Your task to perform on an android device: toggle sleep mode Image 0: 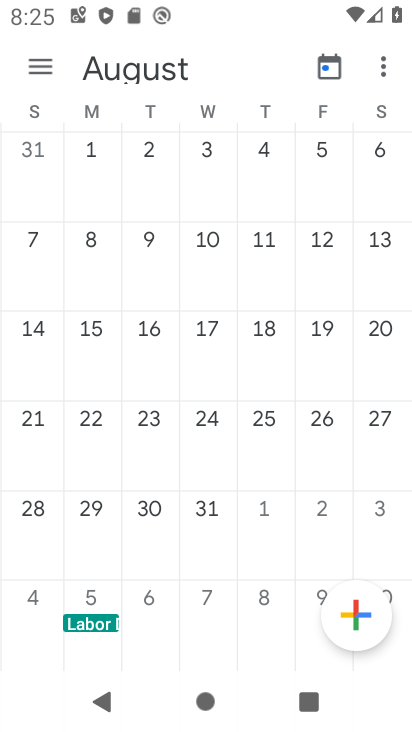
Step 0: press home button
Your task to perform on an android device: toggle sleep mode Image 1: 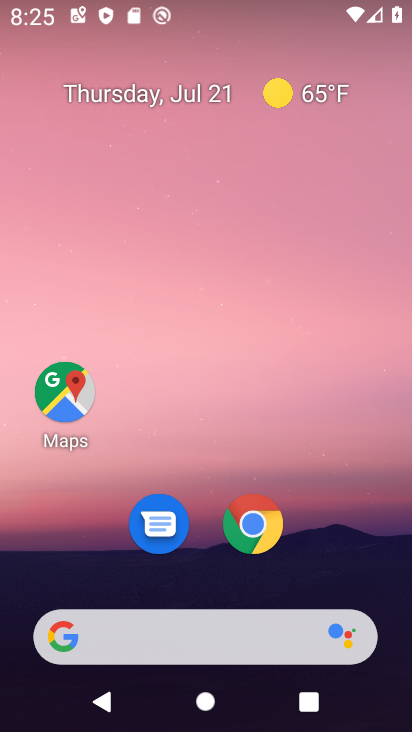
Step 1: drag from (217, 636) to (197, 119)
Your task to perform on an android device: toggle sleep mode Image 2: 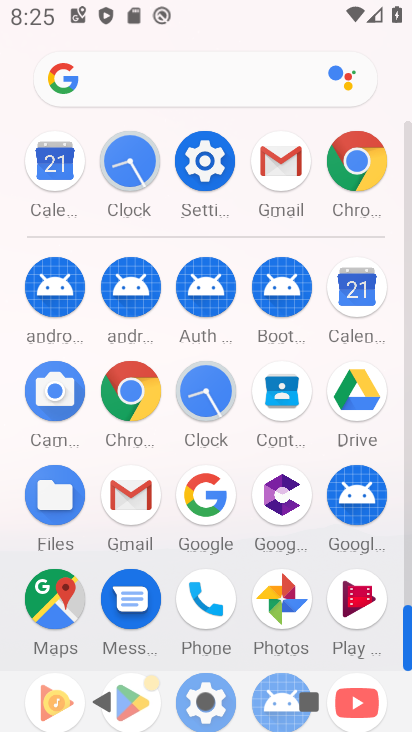
Step 2: click (215, 148)
Your task to perform on an android device: toggle sleep mode Image 3: 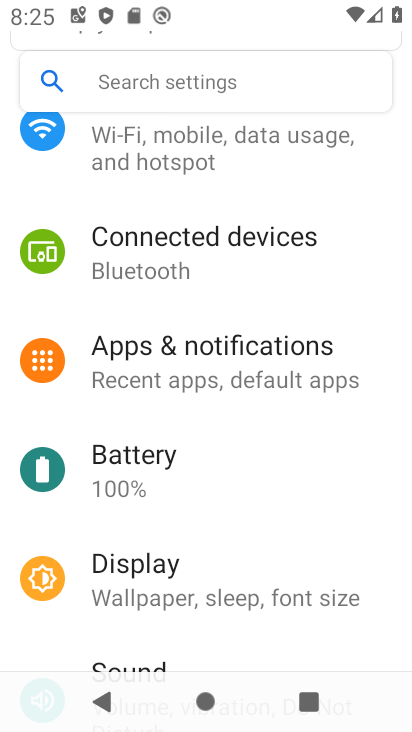
Step 3: click (119, 585)
Your task to perform on an android device: toggle sleep mode Image 4: 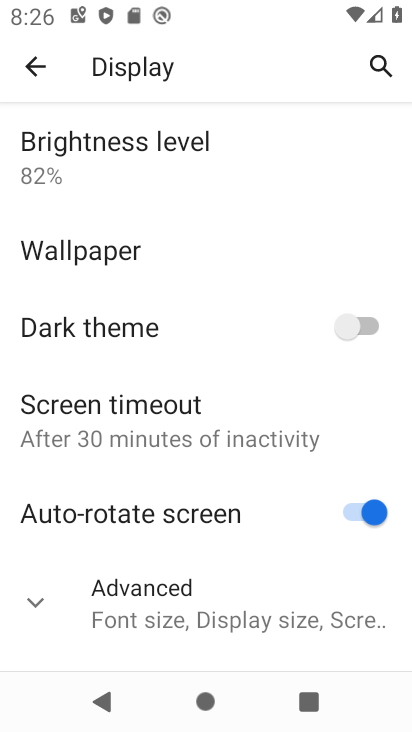
Step 4: click (212, 586)
Your task to perform on an android device: toggle sleep mode Image 5: 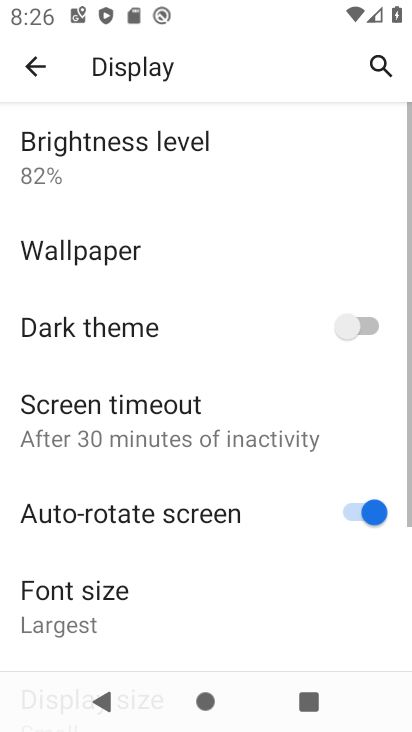
Step 5: task complete